Your task to perform on an android device: Open Maps and search for coffee Image 0: 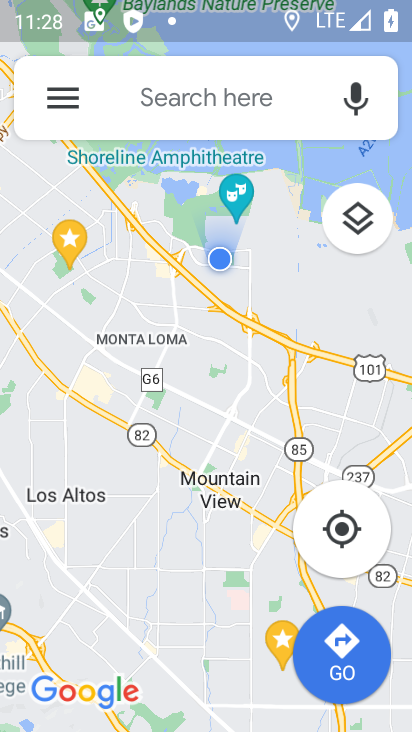
Step 0: click (136, 92)
Your task to perform on an android device: Open Maps and search for coffee Image 1: 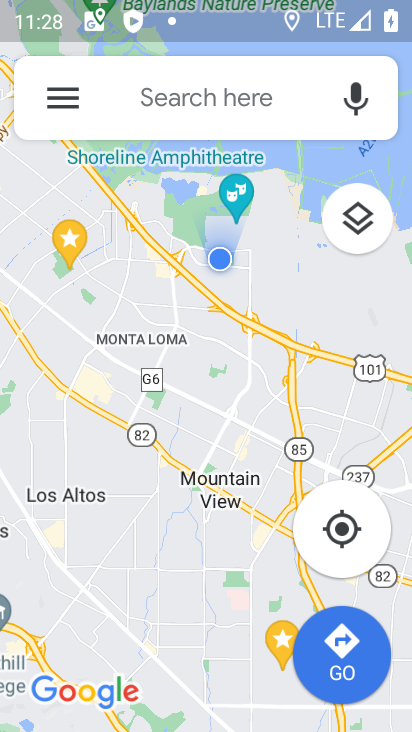
Step 1: click (136, 92)
Your task to perform on an android device: Open Maps and search for coffee Image 2: 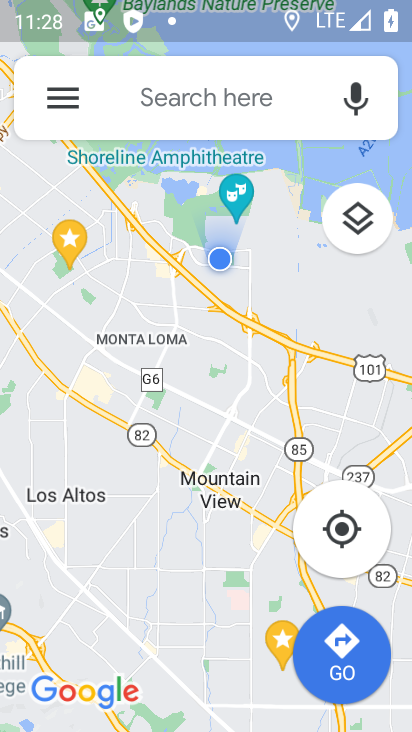
Step 2: click (136, 92)
Your task to perform on an android device: Open Maps and search for coffee Image 3: 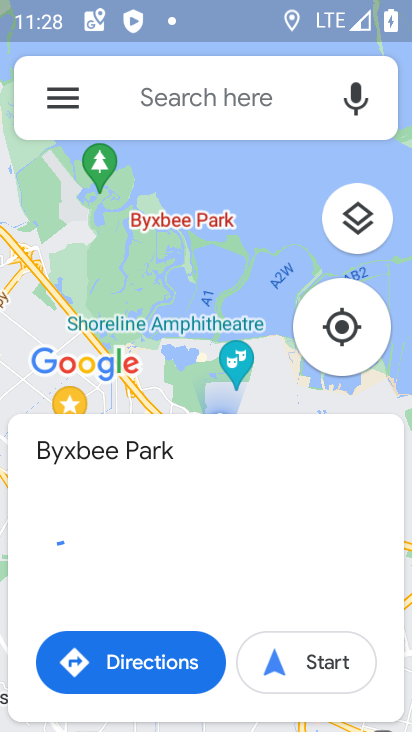
Step 3: click (138, 94)
Your task to perform on an android device: Open Maps and search for coffee Image 4: 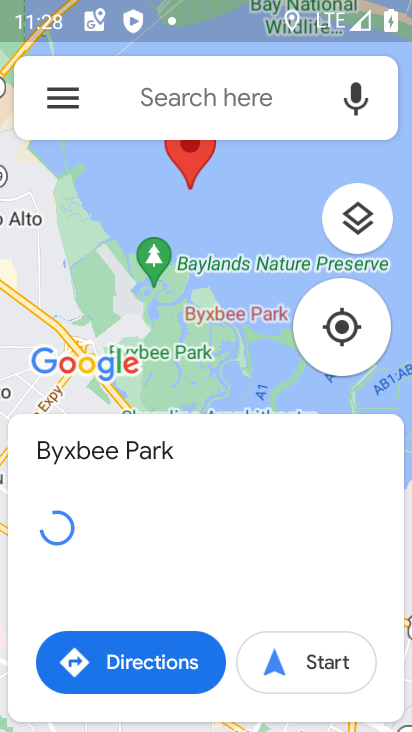
Step 4: click (152, 96)
Your task to perform on an android device: Open Maps and search for coffee Image 5: 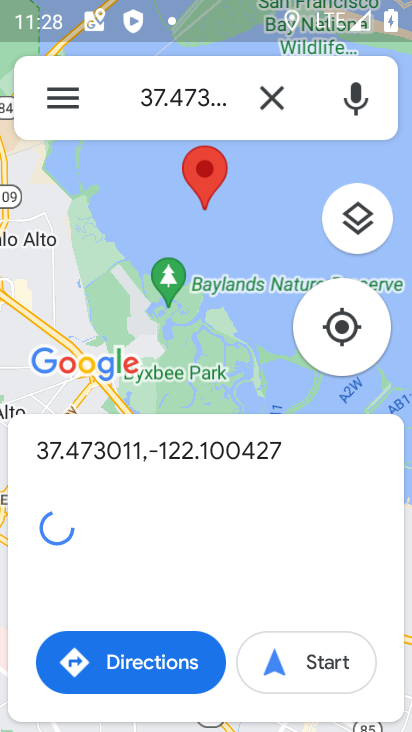
Step 5: click (153, 96)
Your task to perform on an android device: Open Maps and search for coffee Image 6: 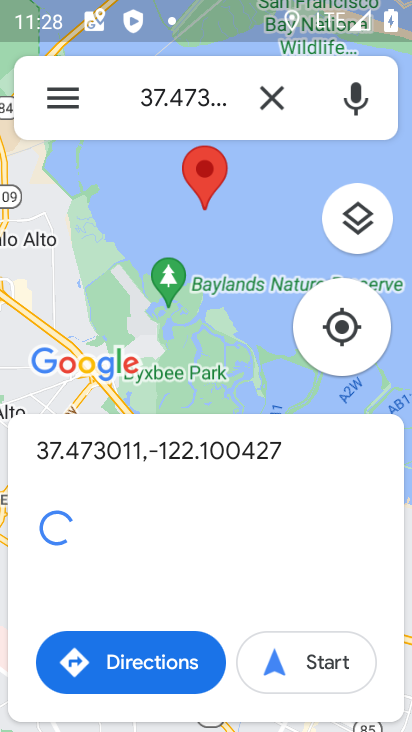
Step 6: click (153, 96)
Your task to perform on an android device: Open Maps and search for coffee Image 7: 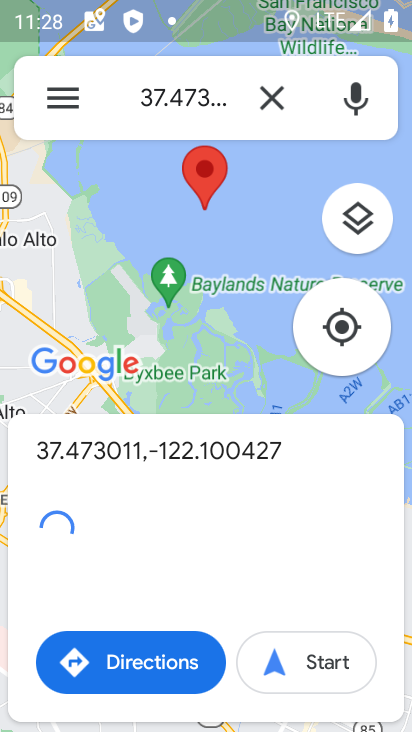
Step 7: click (153, 96)
Your task to perform on an android device: Open Maps and search for coffee Image 8: 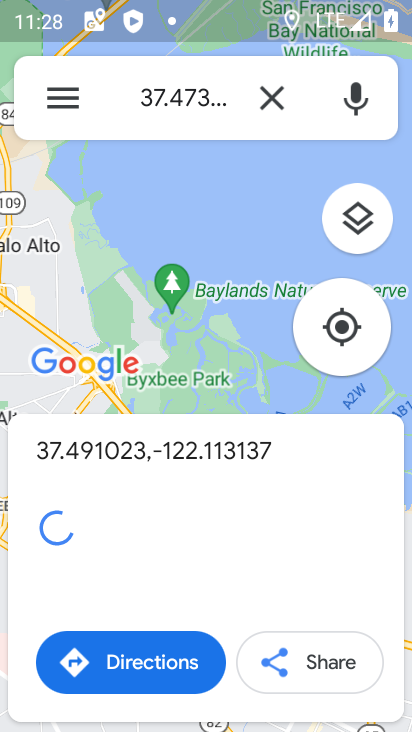
Step 8: click (154, 95)
Your task to perform on an android device: Open Maps and search for coffee Image 9: 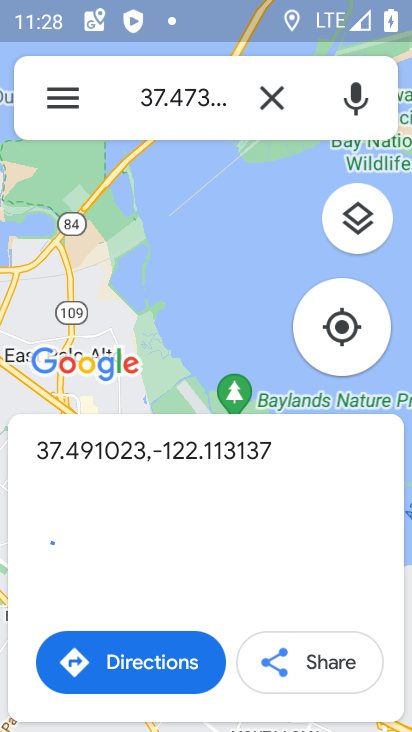
Step 9: click (278, 91)
Your task to perform on an android device: Open Maps and search for coffee Image 10: 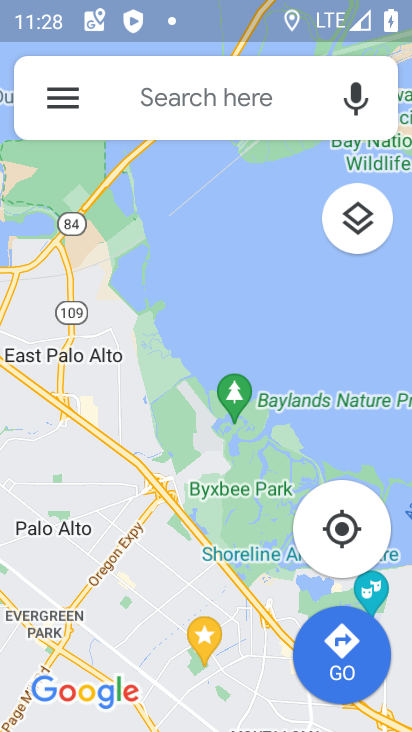
Step 10: click (153, 91)
Your task to perform on an android device: Open Maps and search for coffee Image 11: 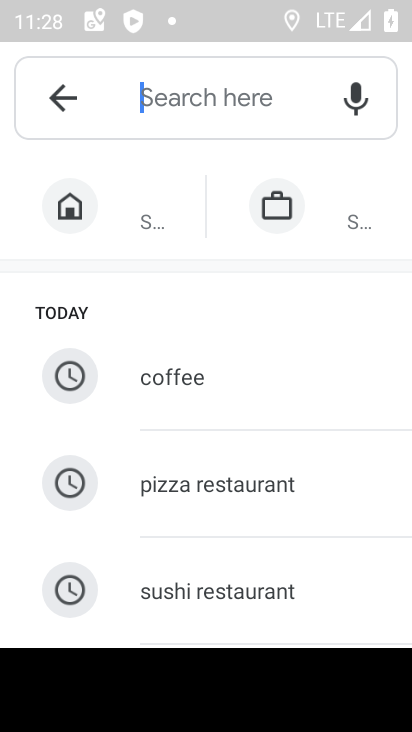
Step 11: click (187, 380)
Your task to perform on an android device: Open Maps and search for coffee Image 12: 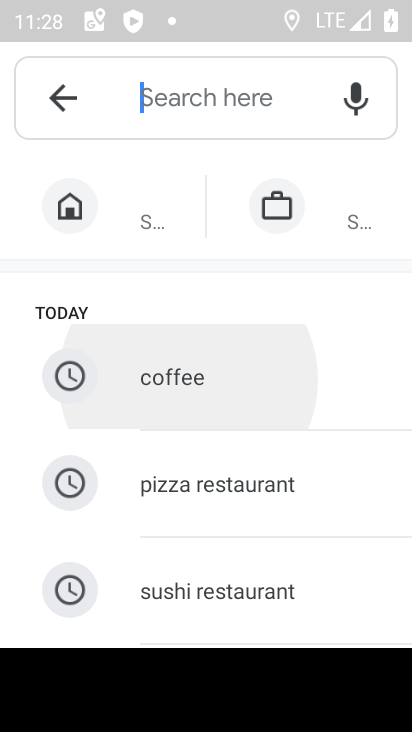
Step 12: click (185, 374)
Your task to perform on an android device: Open Maps and search for coffee Image 13: 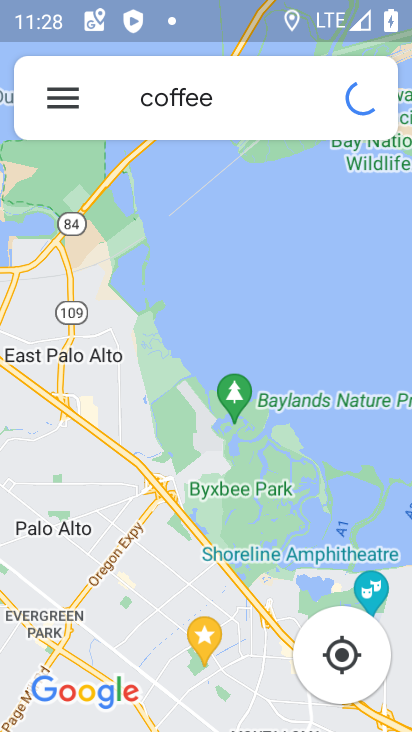
Step 13: task complete